Your task to perform on an android device: Show me popular games on the Play Store Image 0: 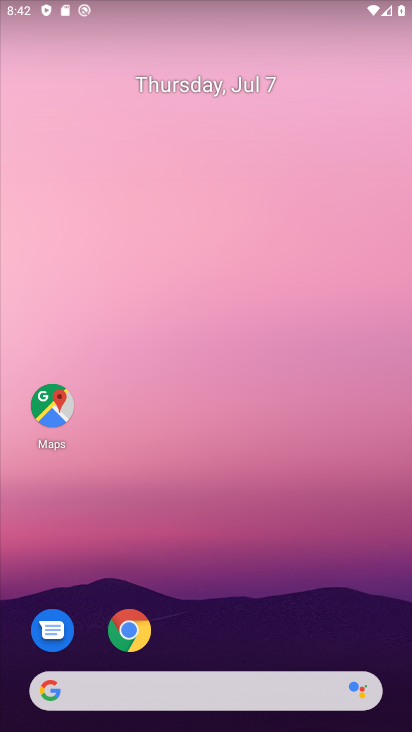
Step 0: drag from (206, 627) to (231, 208)
Your task to perform on an android device: Show me popular games on the Play Store Image 1: 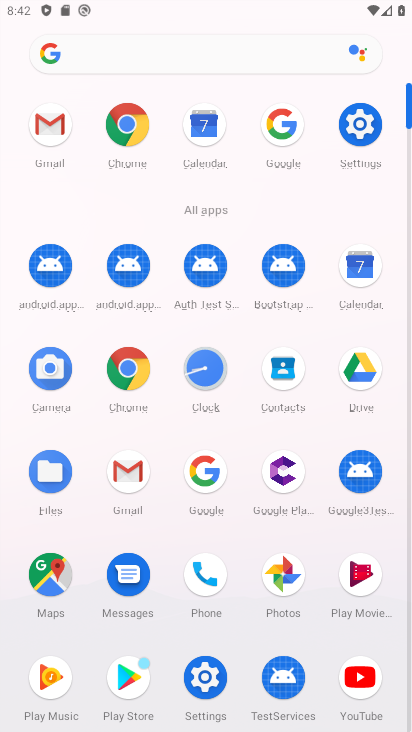
Step 1: click (107, 690)
Your task to perform on an android device: Show me popular games on the Play Store Image 2: 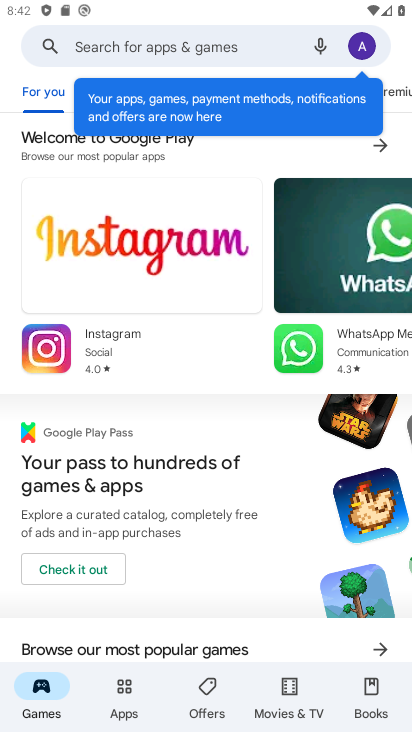
Step 2: click (124, 100)
Your task to perform on an android device: Show me popular games on the Play Store Image 3: 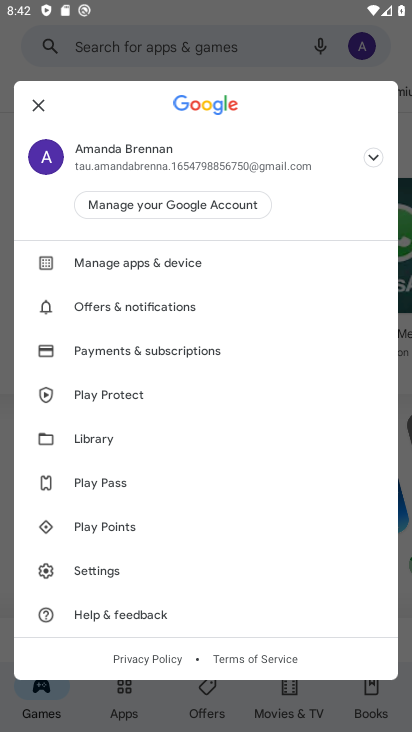
Step 3: click (39, 112)
Your task to perform on an android device: Show me popular games on the Play Store Image 4: 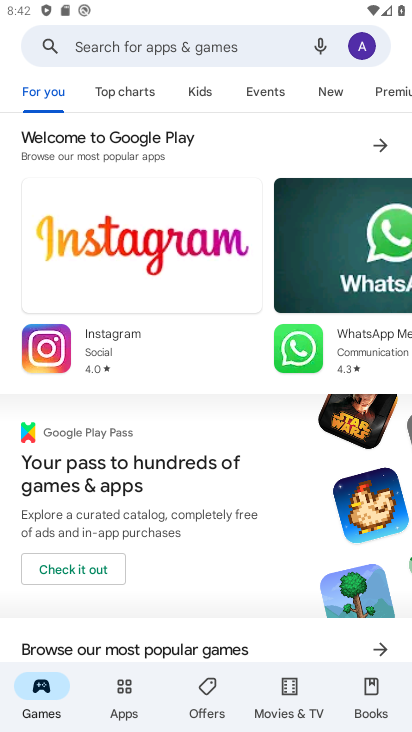
Step 4: click (121, 94)
Your task to perform on an android device: Show me popular games on the Play Store Image 5: 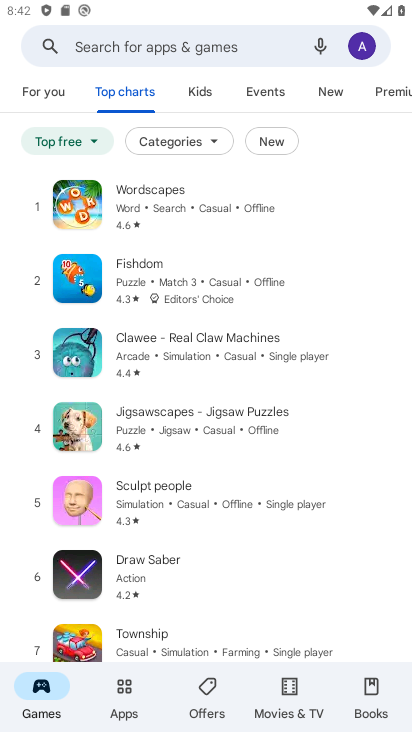
Step 5: drag from (196, 533) to (230, 243)
Your task to perform on an android device: Show me popular games on the Play Store Image 6: 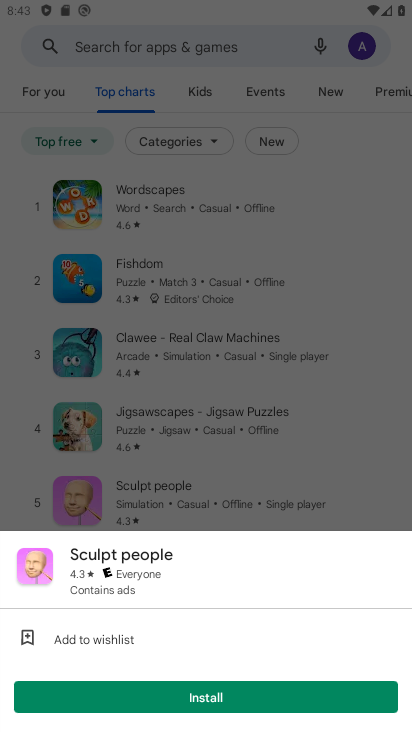
Step 6: click (308, 285)
Your task to perform on an android device: Show me popular games on the Play Store Image 7: 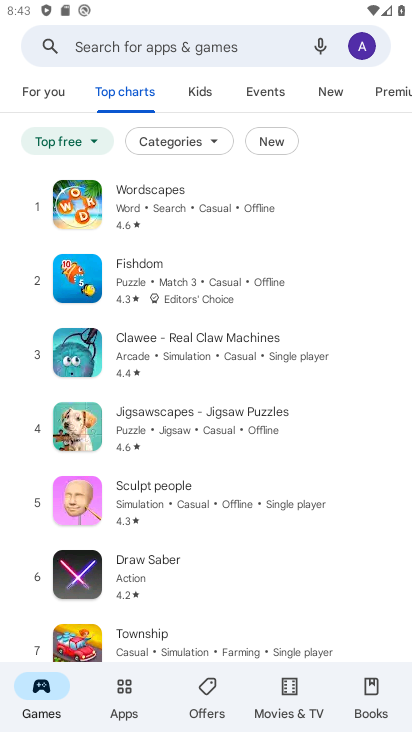
Step 7: task complete